Your task to perform on an android device: visit the assistant section in the google photos Image 0: 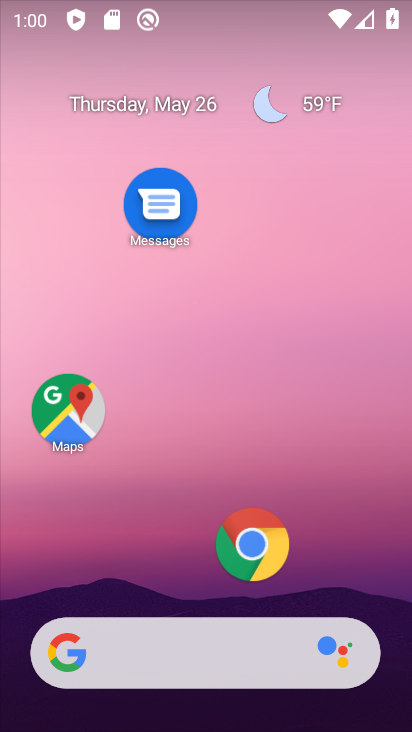
Step 0: drag from (172, 578) to (194, 176)
Your task to perform on an android device: visit the assistant section in the google photos Image 1: 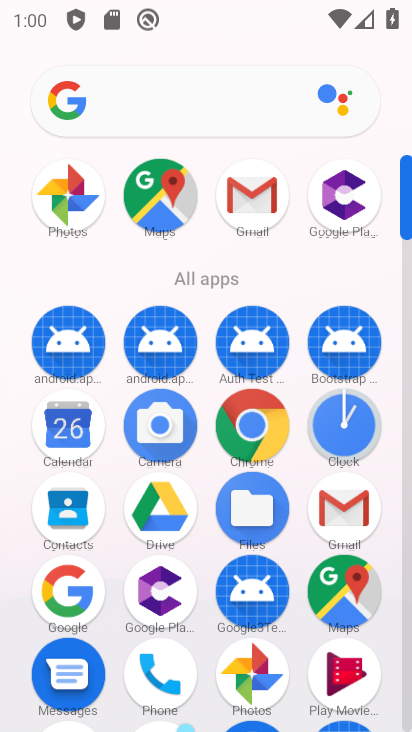
Step 1: click (81, 207)
Your task to perform on an android device: visit the assistant section in the google photos Image 2: 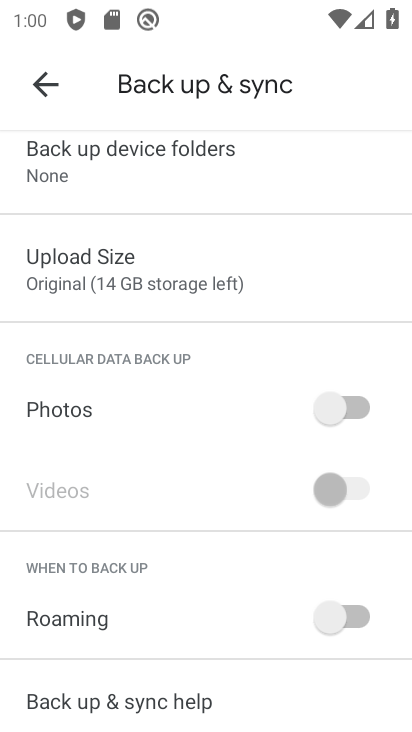
Step 2: click (41, 109)
Your task to perform on an android device: visit the assistant section in the google photos Image 3: 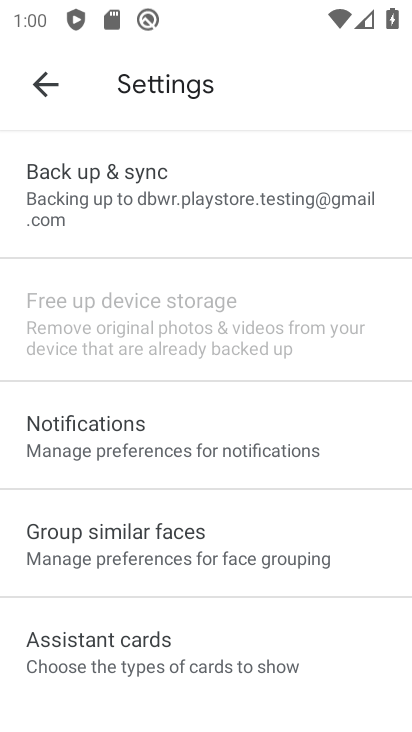
Step 3: click (63, 99)
Your task to perform on an android device: visit the assistant section in the google photos Image 4: 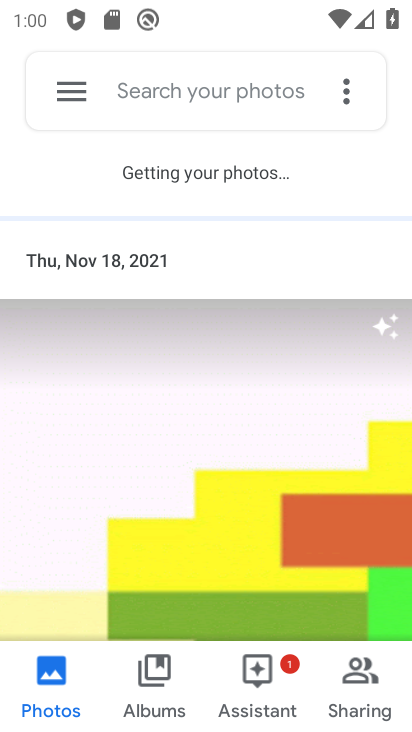
Step 4: click (277, 672)
Your task to perform on an android device: visit the assistant section in the google photos Image 5: 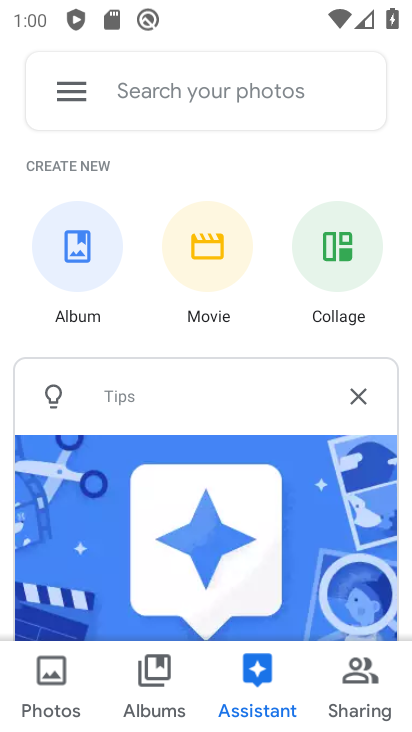
Step 5: task complete